Your task to perform on an android device: Show me popular videos on Youtube Image 0: 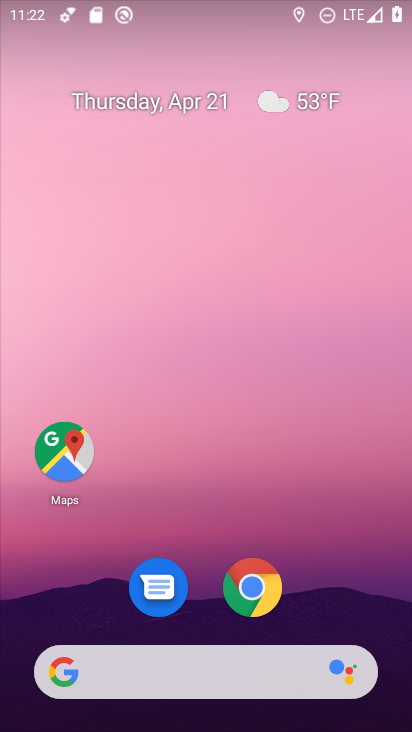
Step 0: drag from (197, 686) to (202, 159)
Your task to perform on an android device: Show me popular videos on Youtube Image 1: 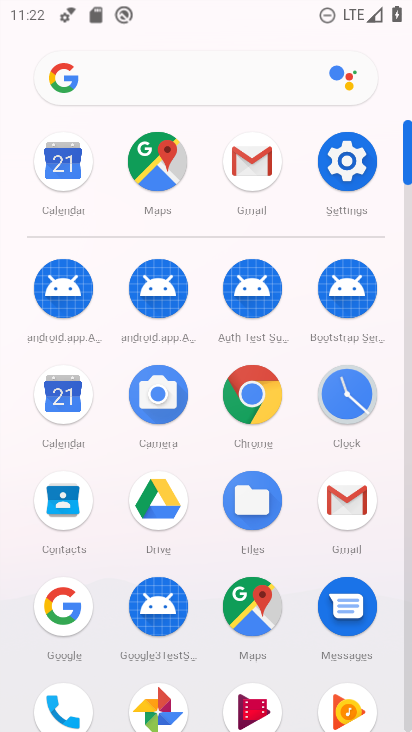
Step 1: drag from (175, 656) to (181, 43)
Your task to perform on an android device: Show me popular videos on Youtube Image 2: 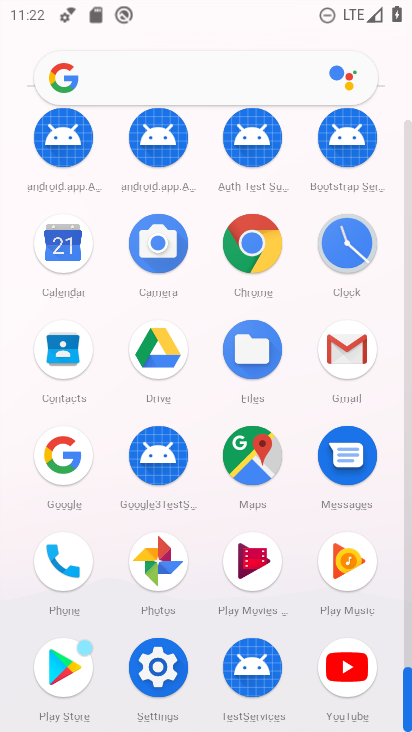
Step 2: click (341, 666)
Your task to perform on an android device: Show me popular videos on Youtube Image 3: 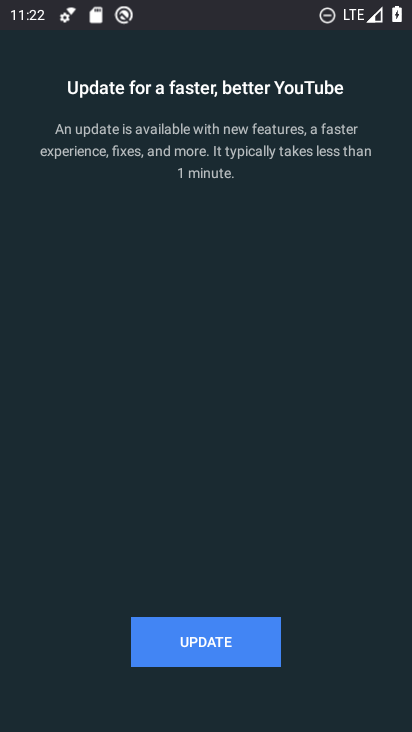
Step 3: drag from (341, 666) to (225, 666)
Your task to perform on an android device: Show me popular videos on Youtube Image 4: 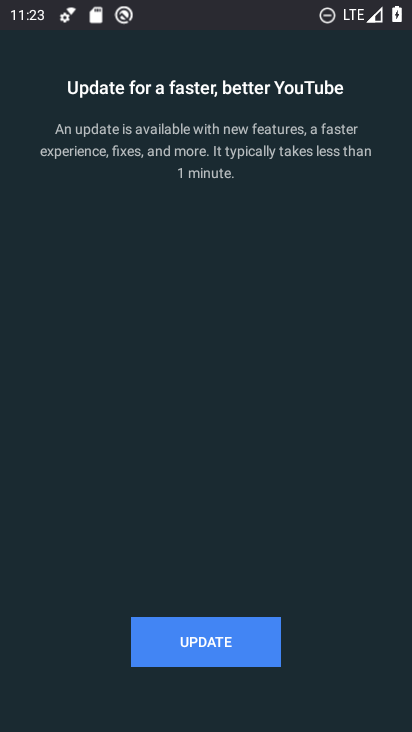
Step 4: drag from (341, 666) to (225, 666)
Your task to perform on an android device: Show me popular videos on Youtube Image 5: 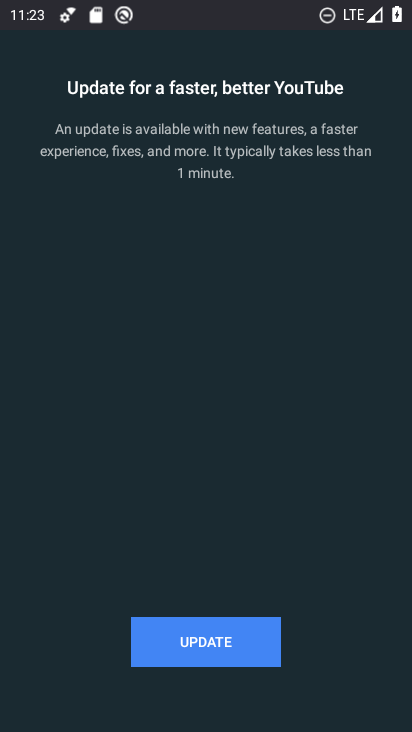
Step 5: click (198, 639)
Your task to perform on an android device: Show me popular videos on Youtube Image 6: 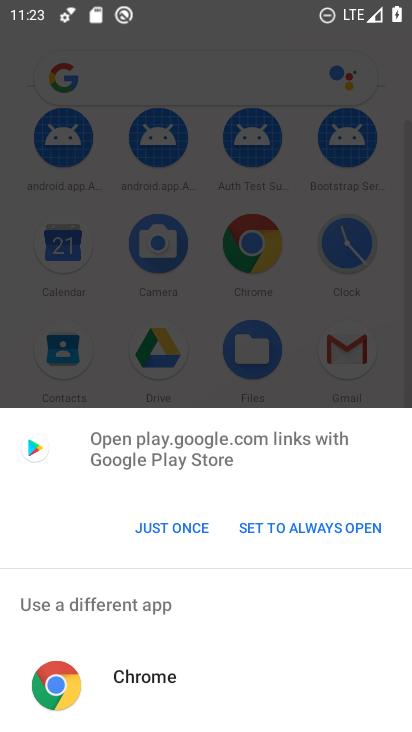
Step 6: click (172, 538)
Your task to perform on an android device: Show me popular videos on Youtube Image 7: 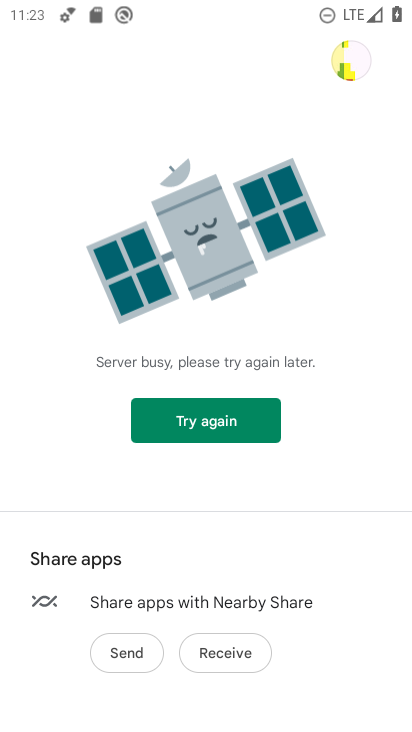
Step 7: task complete